Your task to perform on an android device: check android version Image 0: 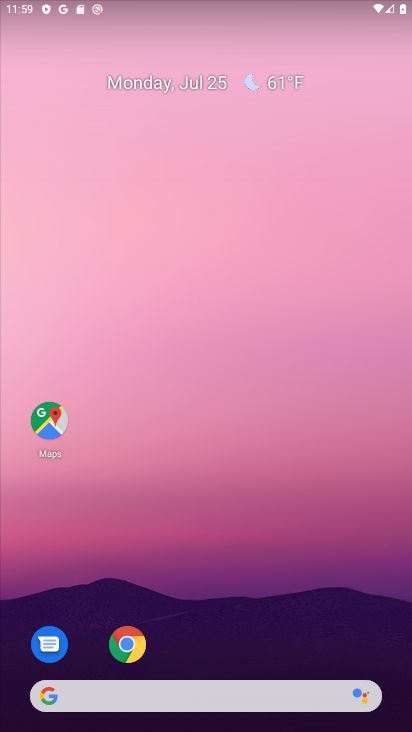
Step 0: drag from (238, 616) to (235, 13)
Your task to perform on an android device: check android version Image 1: 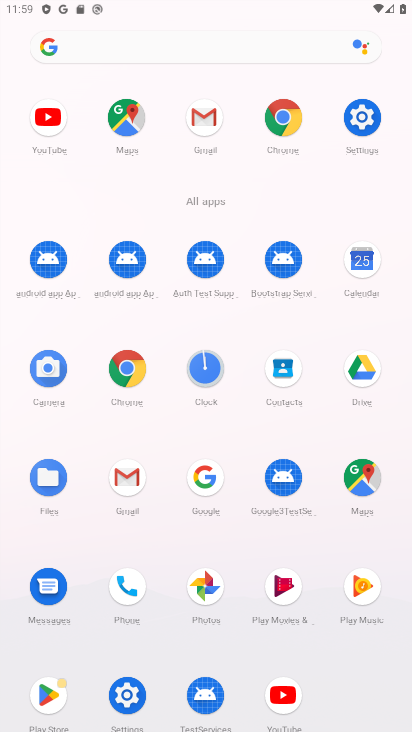
Step 1: click (128, 702)
Your task to perform on an android device: check android version Image 2: 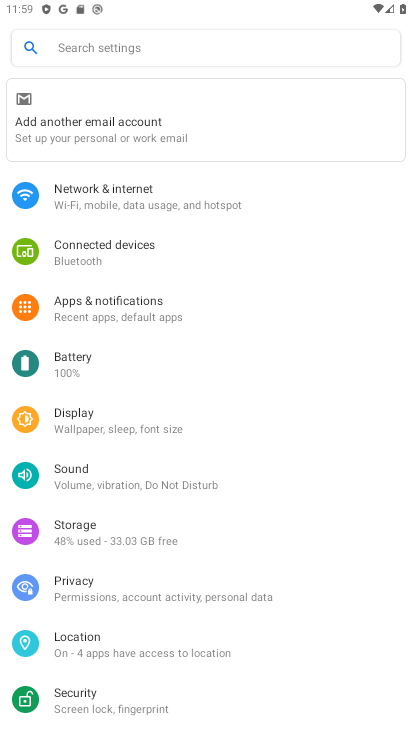
Step 2: drag from (151, 682) to (110, 231)
Your task to perform on an android device: check android version Image 3: 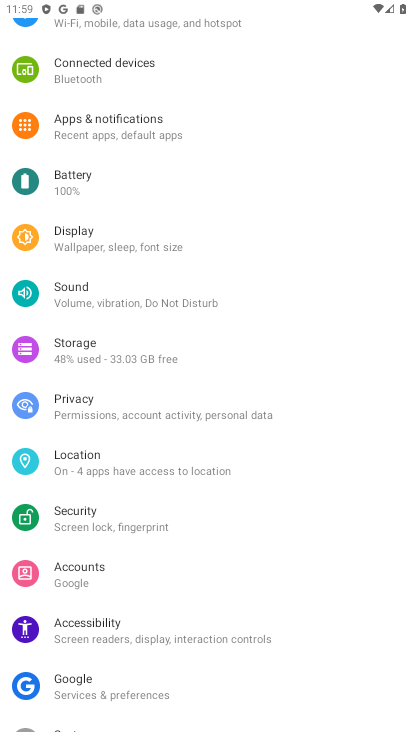
Step 3: drag from (136, 618) to (109, 142)
Your task to perform on an android device: check android version Image 4: 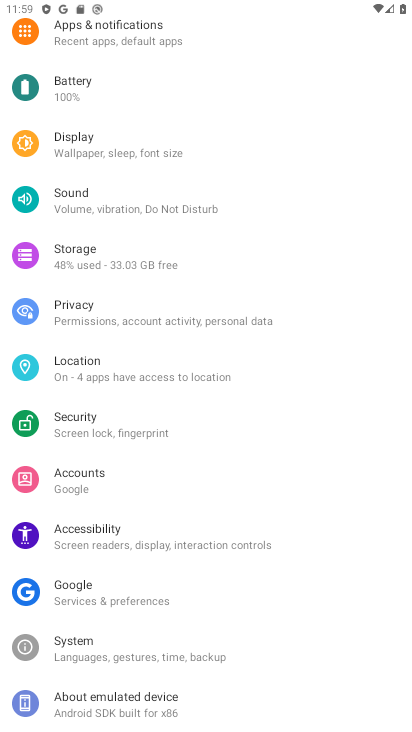
Step 4: click (77, 686)
Your task to perform on an android device: check android version Image 5: 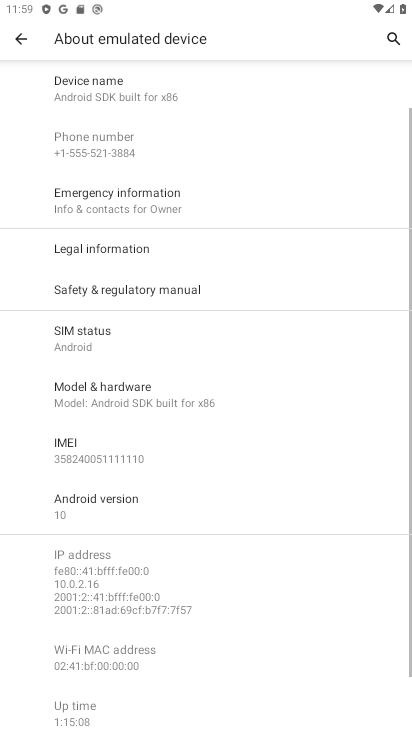
Step 5: click (137, 507)
Your task to perform on an android device: check android version Image 6: 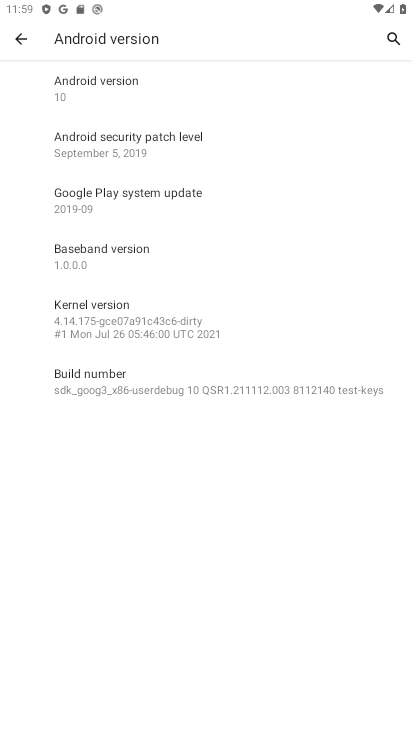
Step 6: click (95, 97)
Your task to perform on an android device: check android version Image 7: 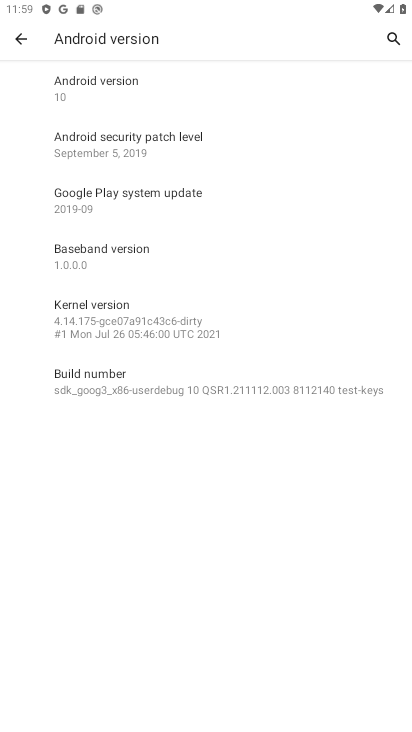
Step 7: task complete